Your task to perform on an android device: manage bookmarks in the chrome app Image 0: 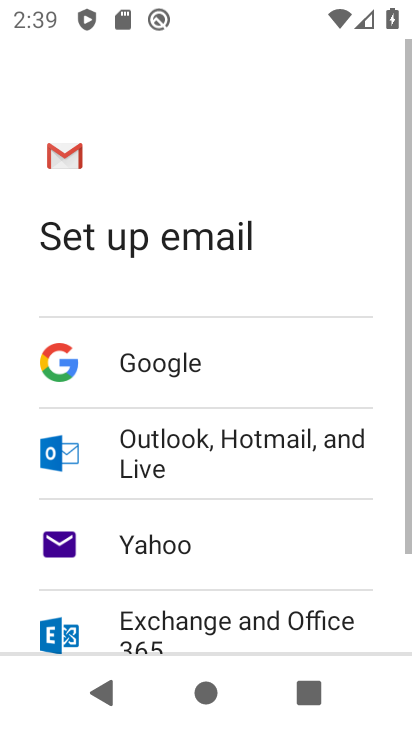
Step 0: press home button
Your task to perform on an android device: manage bookmarks in the chrome app Image 1: 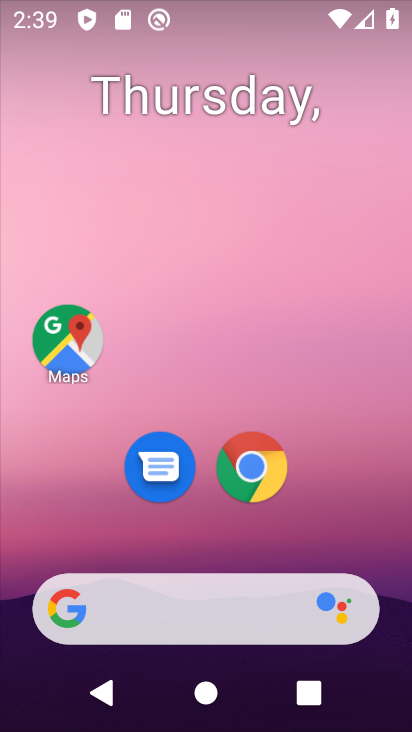
Step 1: click (265, 483)
Your task to perform on an android device: manage bookmarks in the chrome app Image 2: 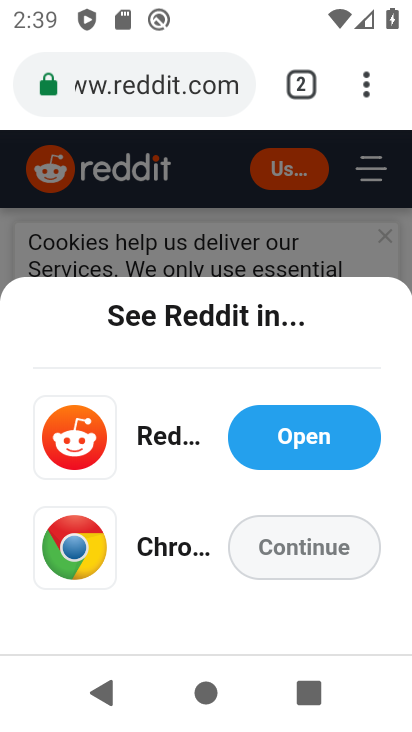
Step 2: click (362, 110)
Your task to perform on an android device: manage bookmarks in the chrome app Image 3: 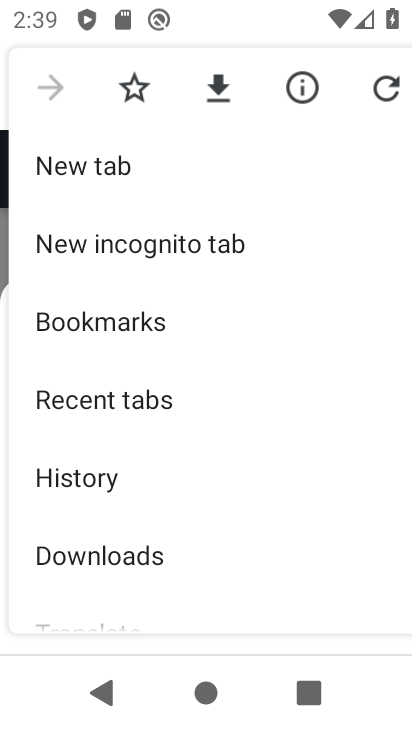
Step 3: click (120, 340)
Your task to perform on an android device: manage bookmarks in the chrome app Image 4: 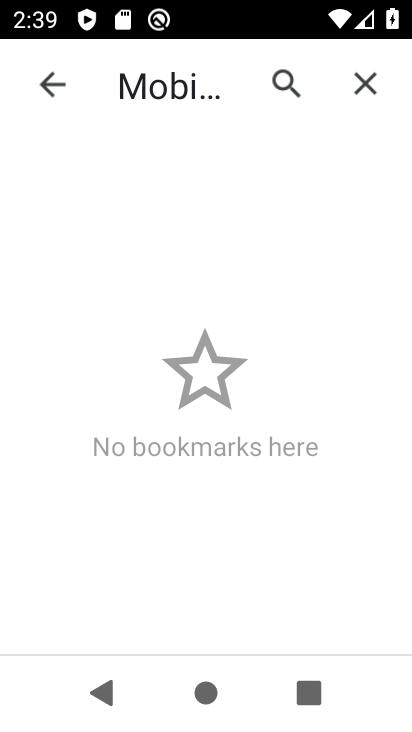
Step 4: task complete